Your task to perform on an android device: turn on the 24-hour format for clock Image 0: 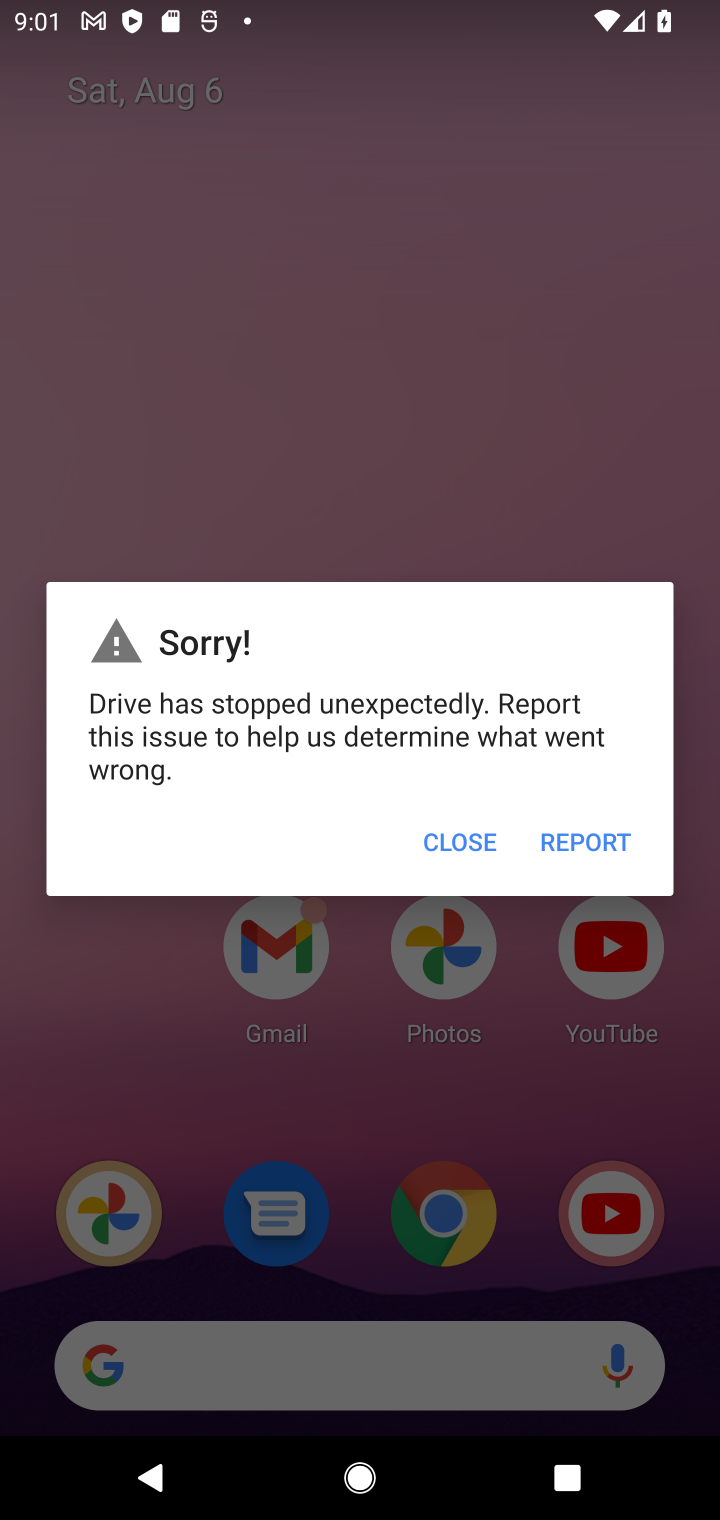
Step 0: click (433, 855)
Your task to perform on an android device: turn on the 24-hour format for clock Image 1: 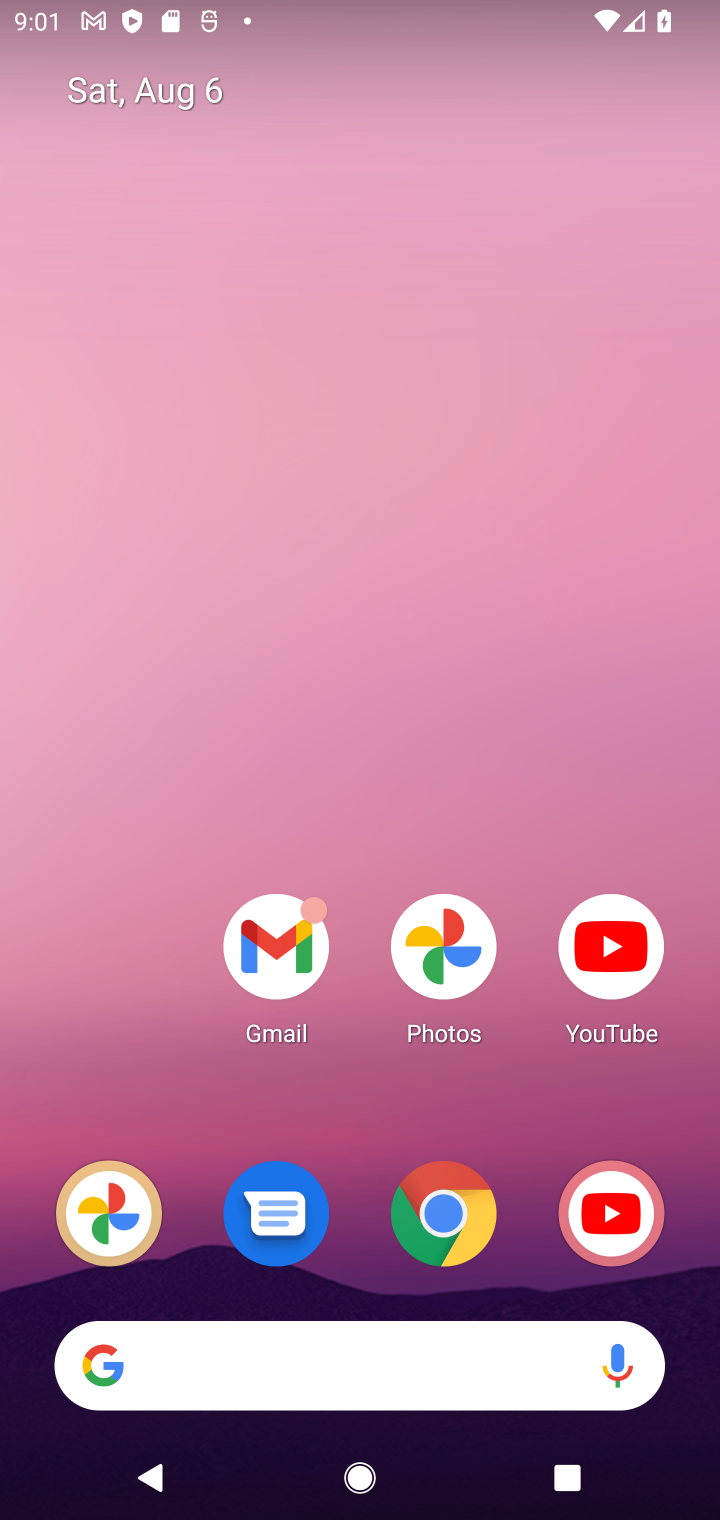
Step 1: drag from (391, 1215) to (213, 15)
Your task to perform on an android device: turn on the 24-hour format for clock Image 2: 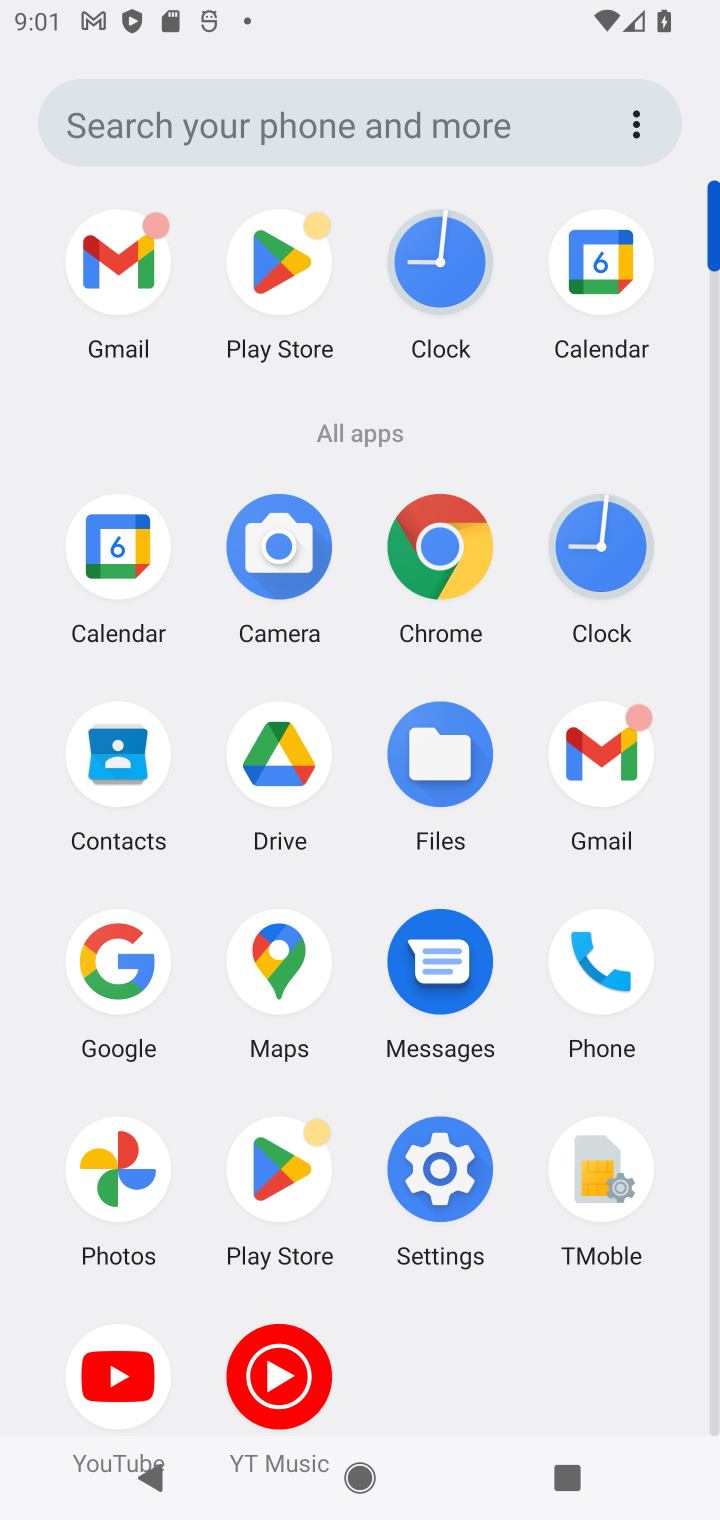
Step 2: click (611, 543)
Your task to perform on an android device: turn on the 24-hour format for clock Image 3: 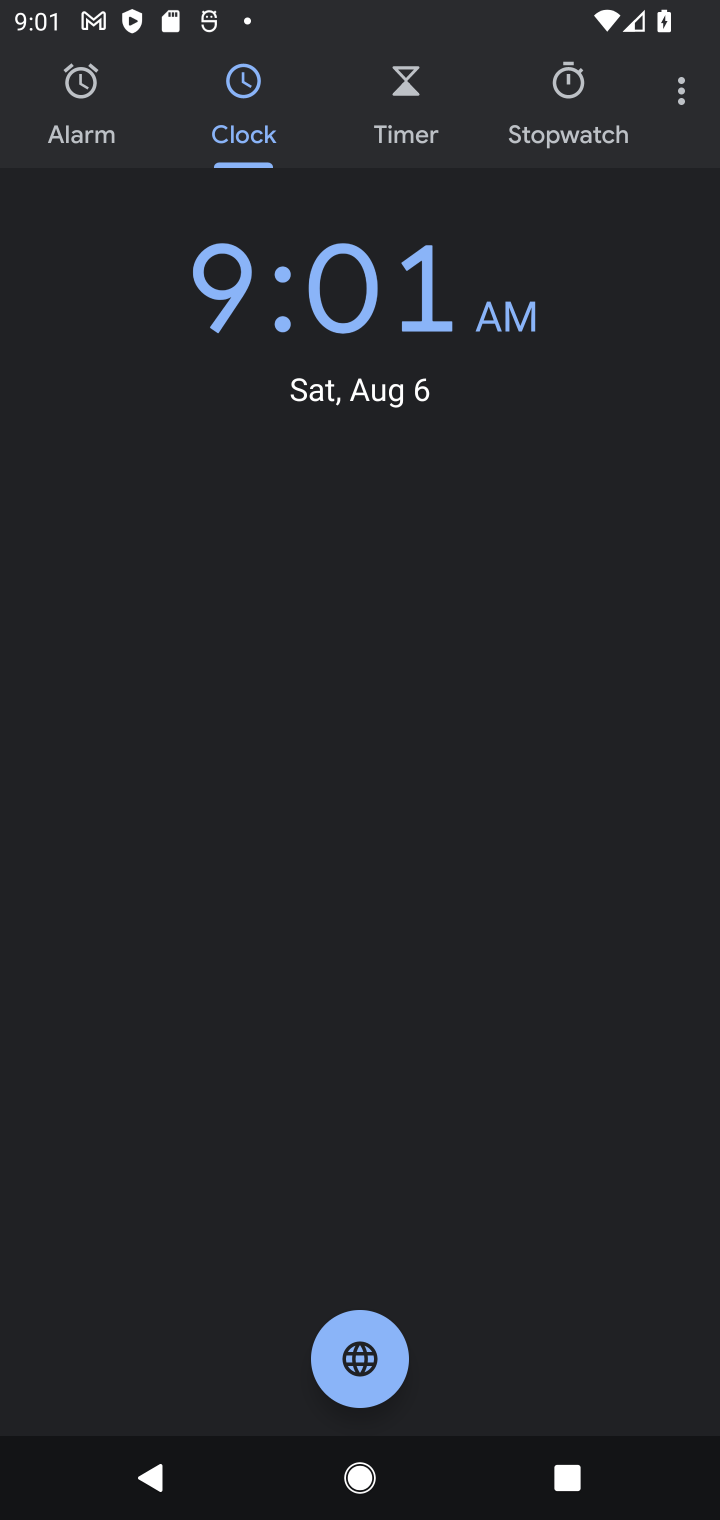
Step 3: click (687, 108)
Your task to perform on an android device: turn on the 24-hour format for clock Image 4: 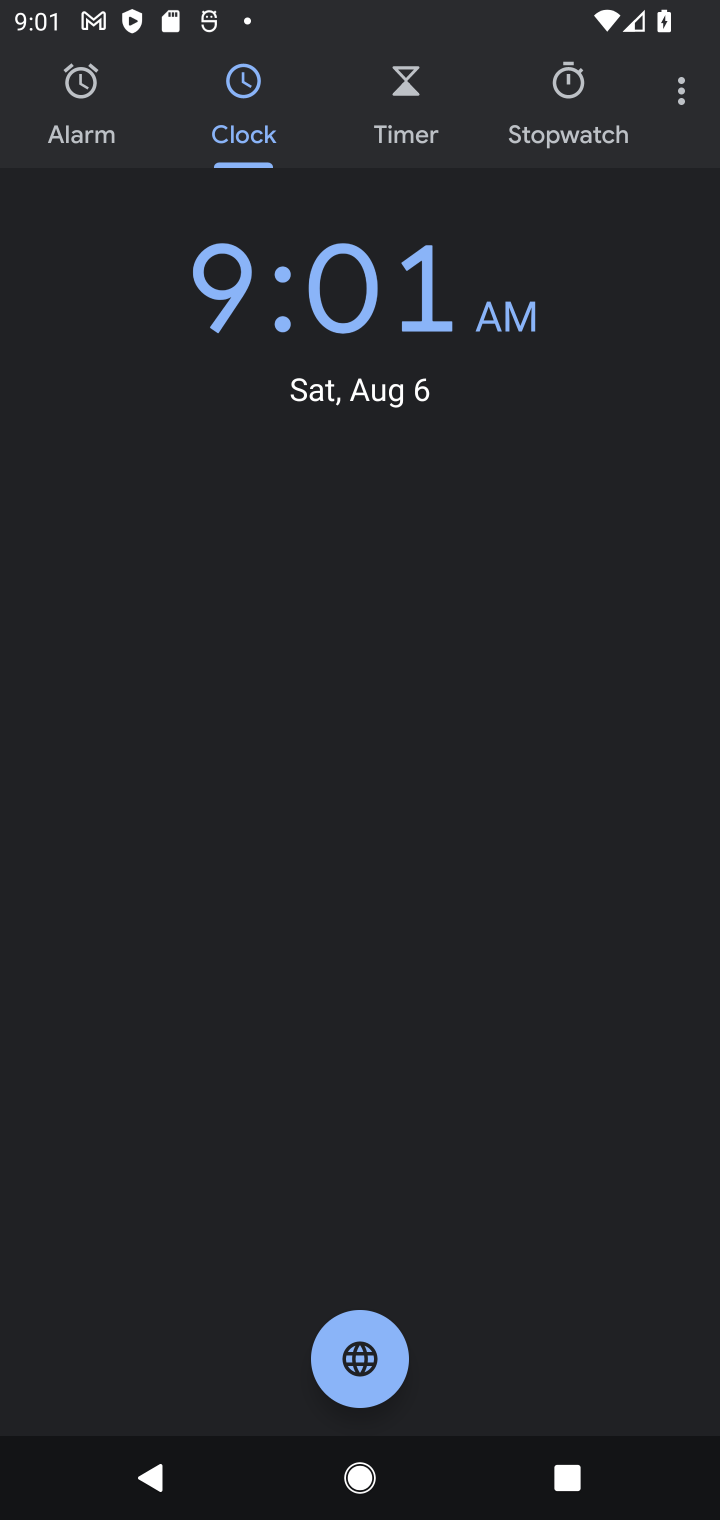
Step 4: click (683, 97)
Your task to perform on an android device: turn on the 24-hour format for clock Image 5: 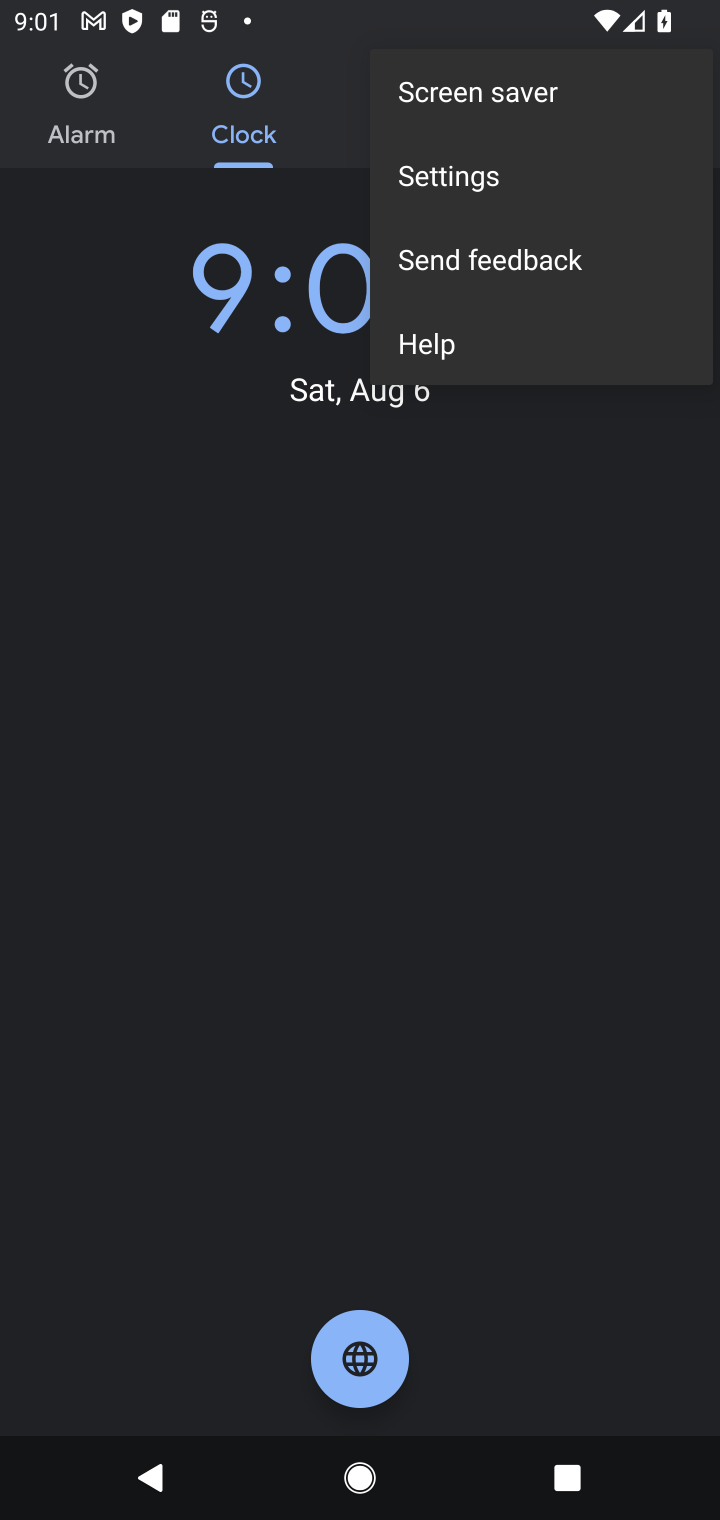
Step 5: click (452, 166)
Your task to perform on an android device: turn on the 24-hour format for clock Image 6: 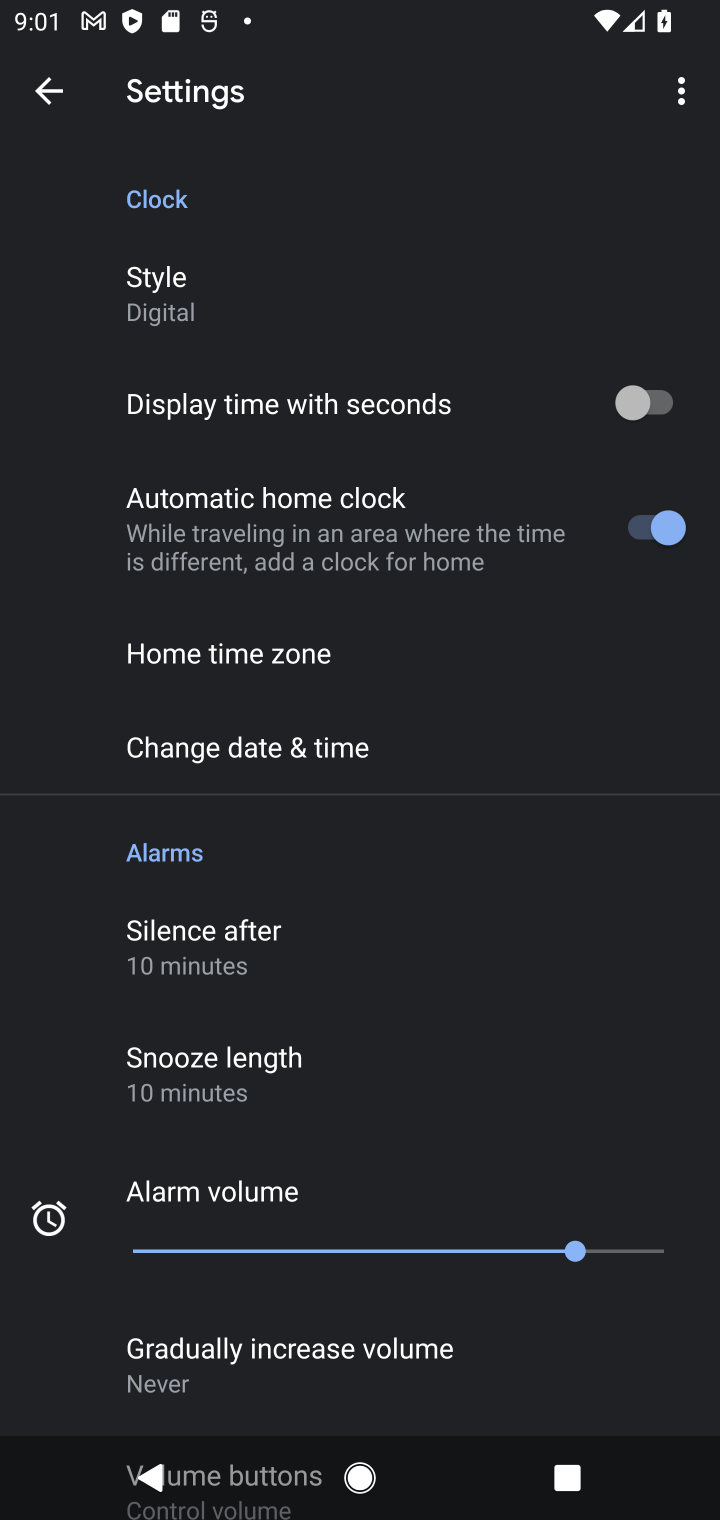
Step 6: click (262, 742)
Your task to perform on an android device: turn on the 24-hour format for clock Image 7: 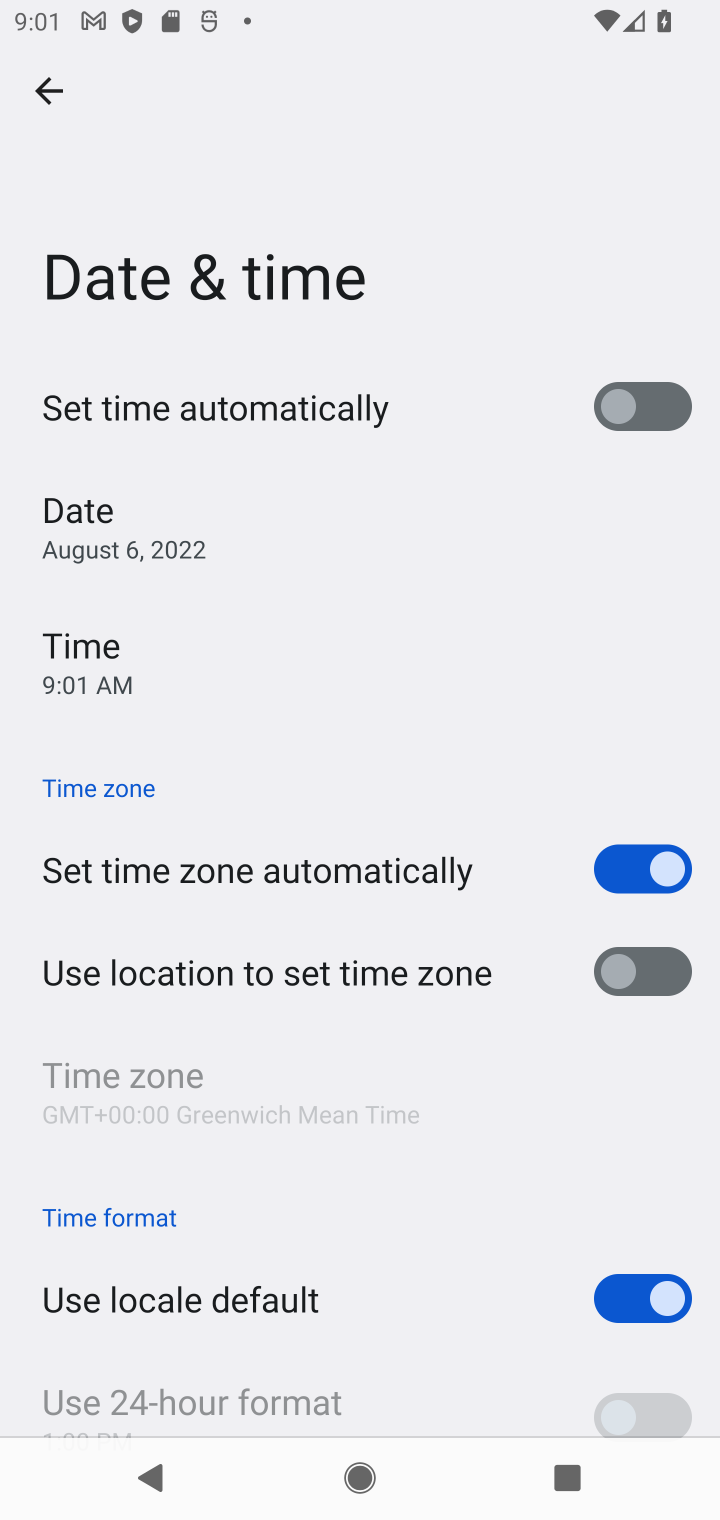
Step 7: drag from (364, 1257) to (417, 376)
Your task to perform on an android device: turn on the 24-hour format for clock Image 8: 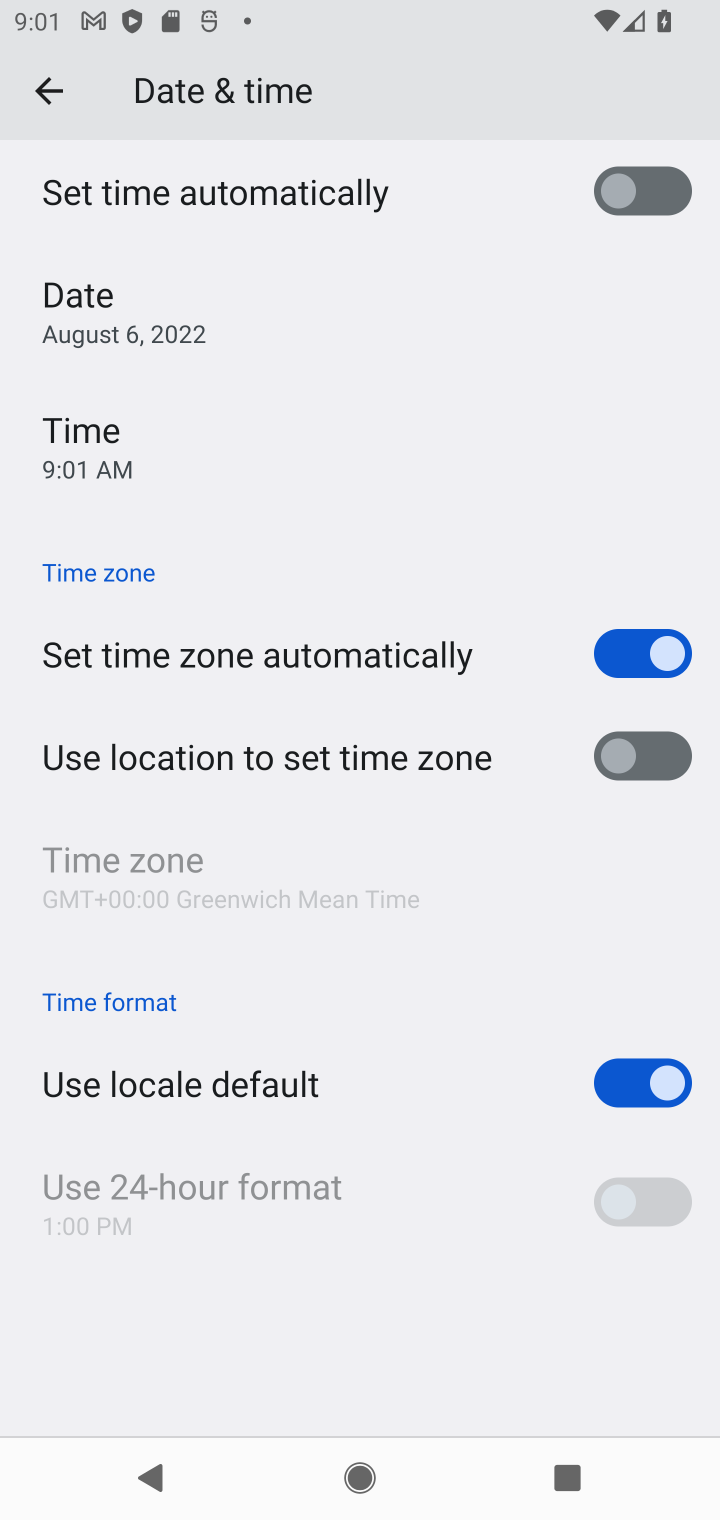
Step 8: click (651, 1079)
Your task to perform on an android device: turn on the 24-hour format for clock Image 9: 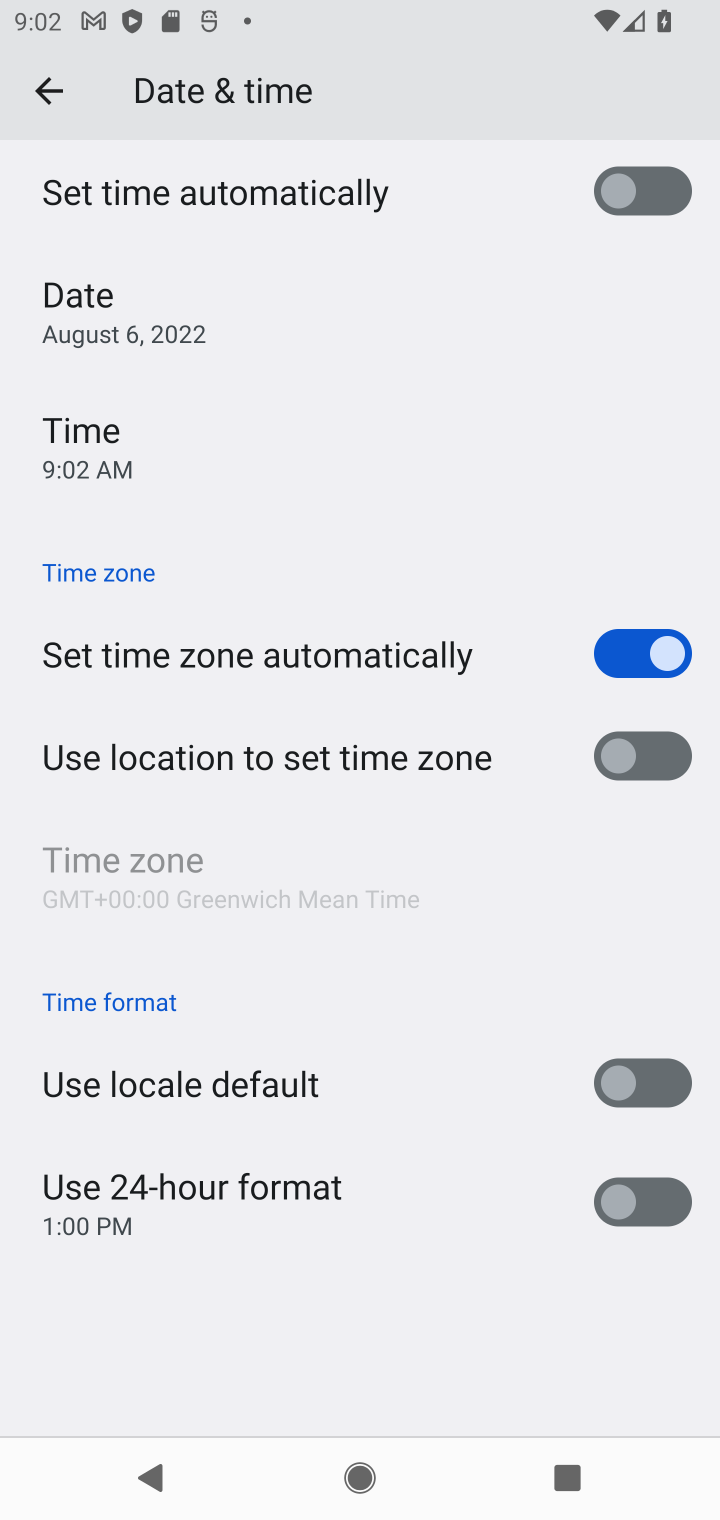
Step 9: click (656, 1214)
Your task to perform on an android device: turn on the 24-hour format for clock Image 10: 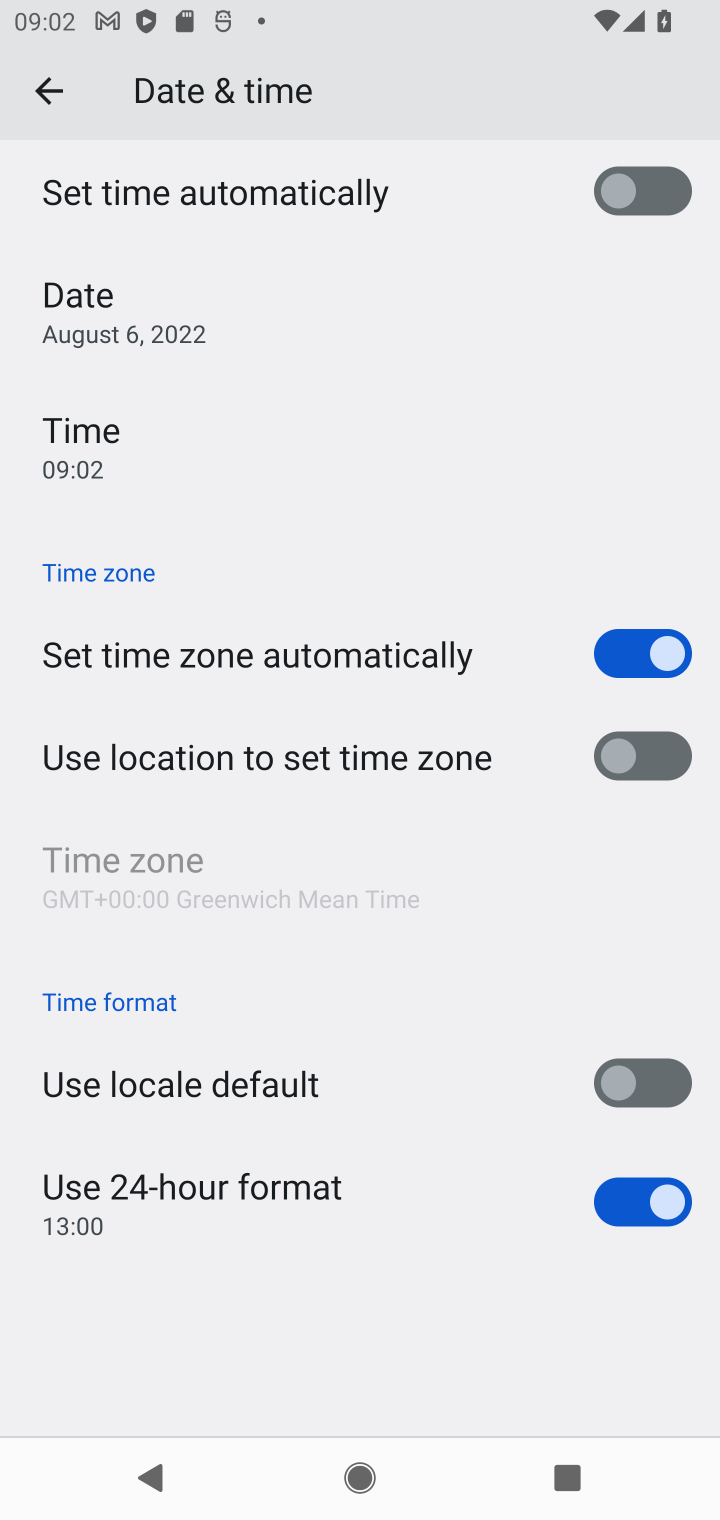
Step 10: task complete